Your task to perform on an android device: Go to Reddit.com Image 0: 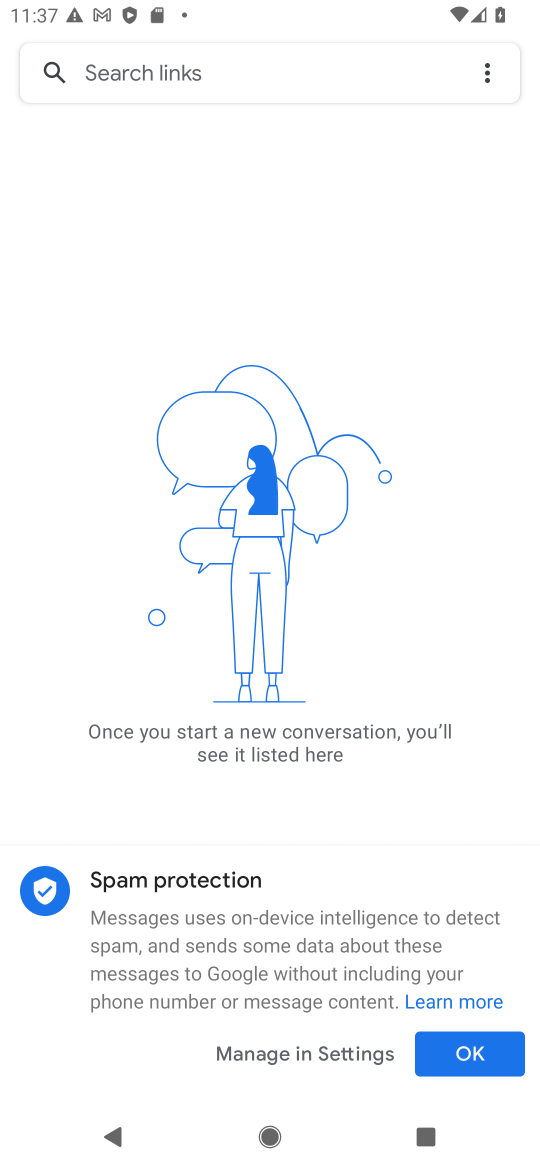
Step 0: press home button
Your task to perform on an android device: Go to Reddit.com Image 1: 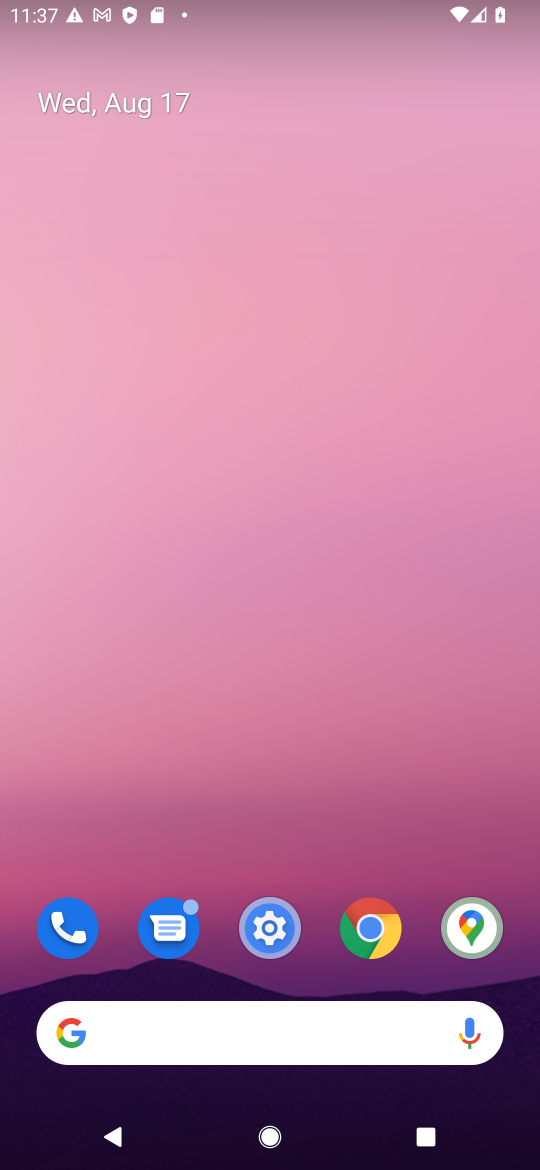
Step 1: click (340, 933)
Your task to perform on an android device: Go to Reddit.com Image 2: 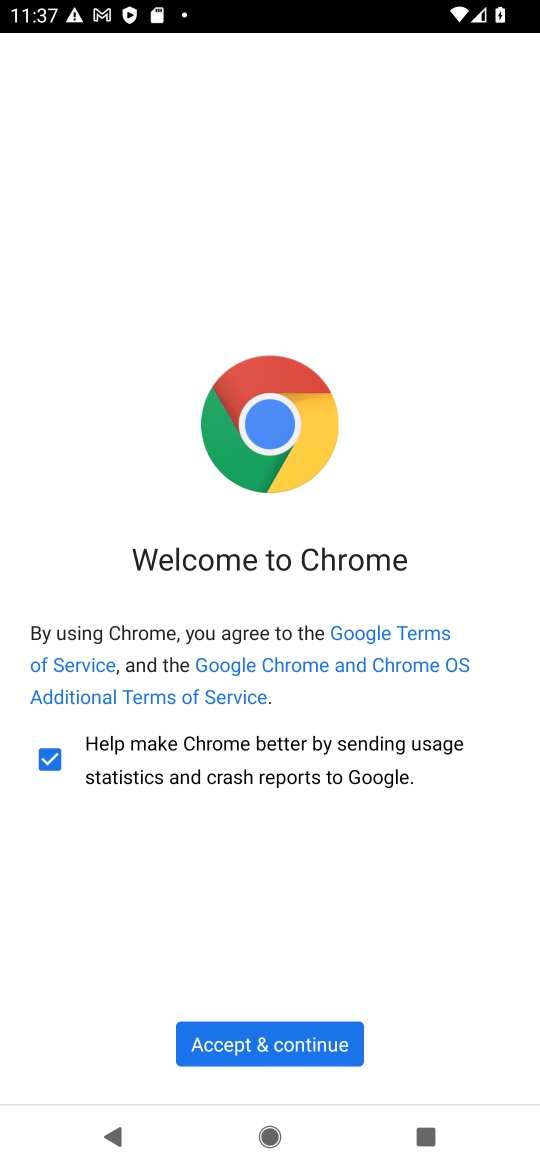
Step 2: click (249, 1035)
Your task to perform on an android device: Go to Reddit.com Image 3: 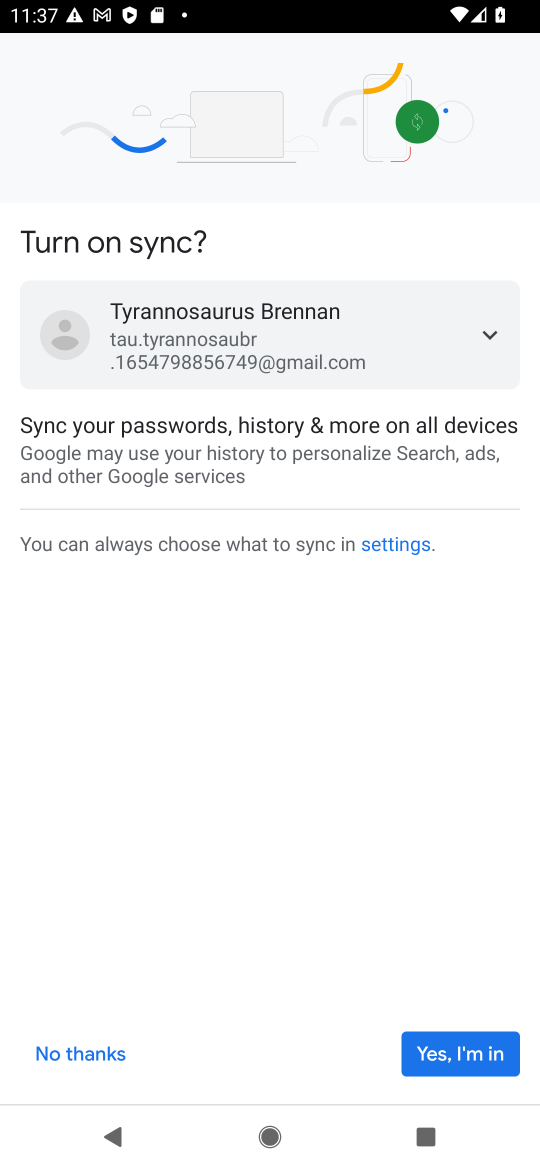
Step 3: click (467, 1047)
Your task to perform on an android device: Go to Reddit.com Image 4: 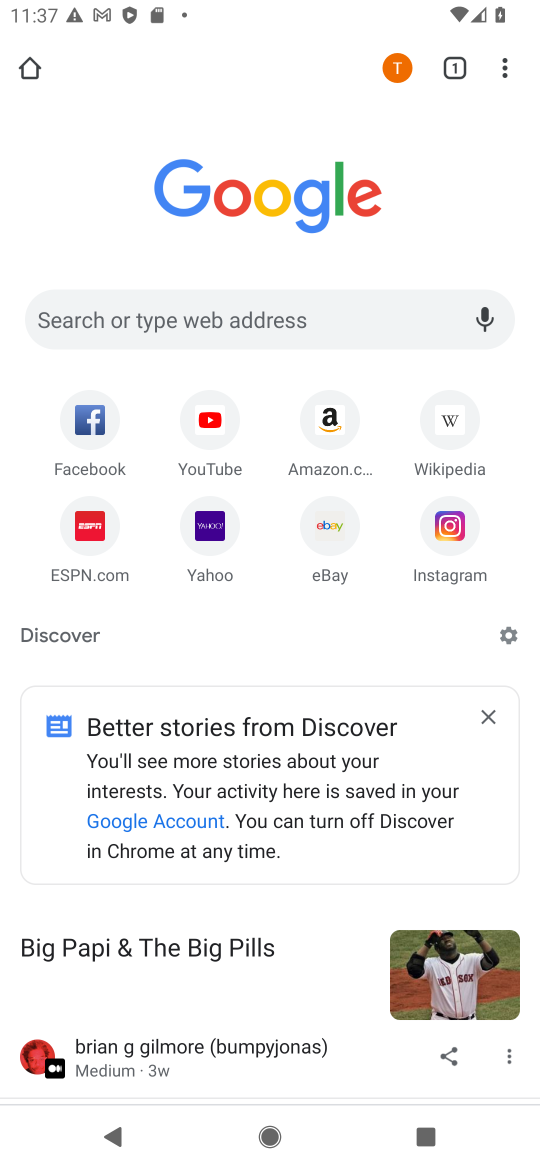
Step 4: click (176, 312)
Your task to perform on an android device: Go to Reddit.com Image 5: 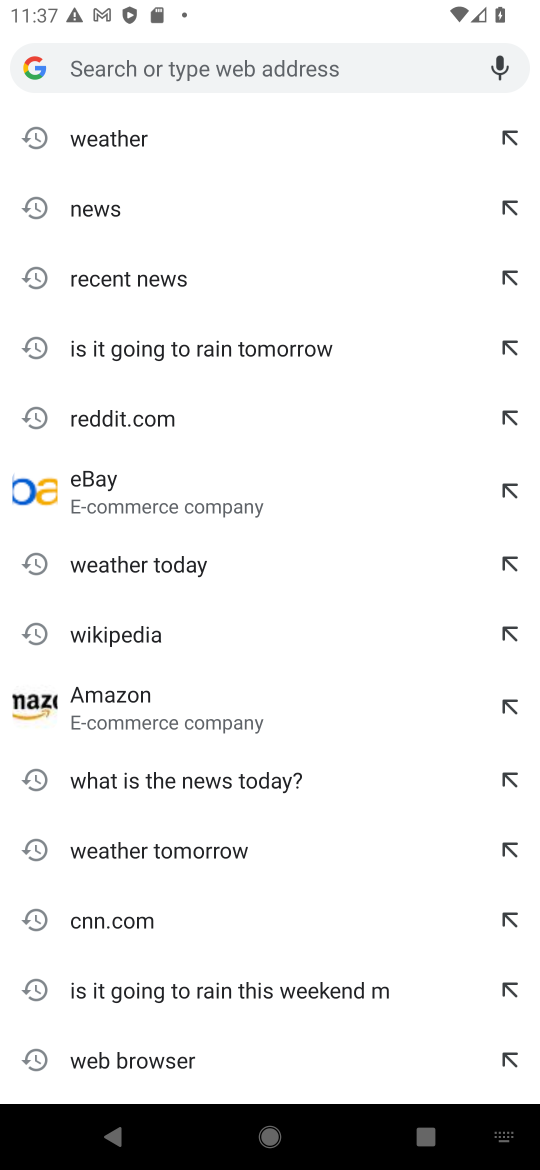
Step 5: type "Reddit.com"
Your task to perform on an android device: Go to Reddit.com Image 6: 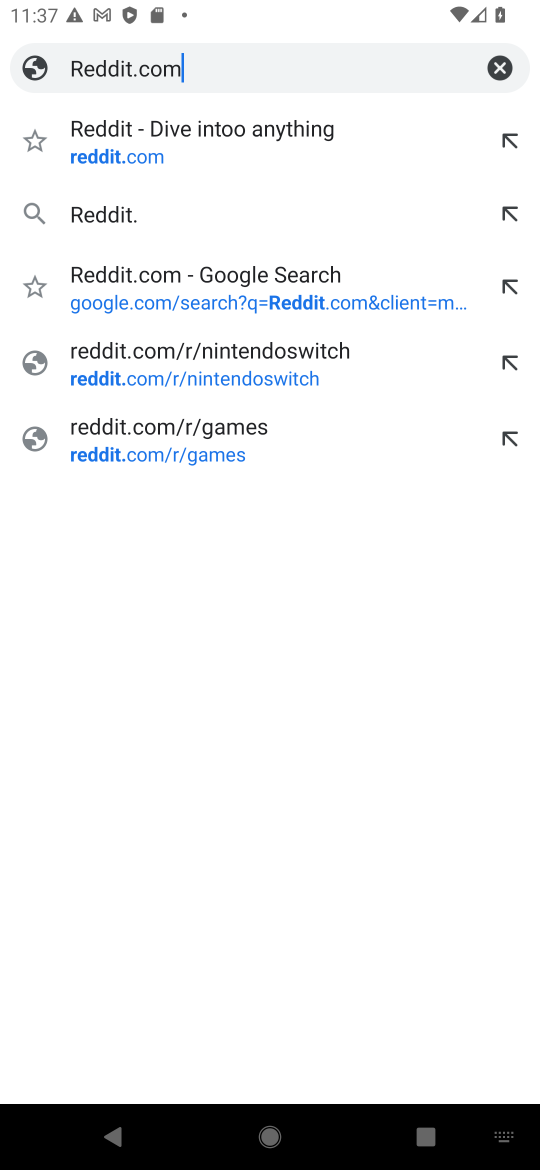
Step 6: type ""
Your task to perform on an android device: Go to Reddit.com Image 7: 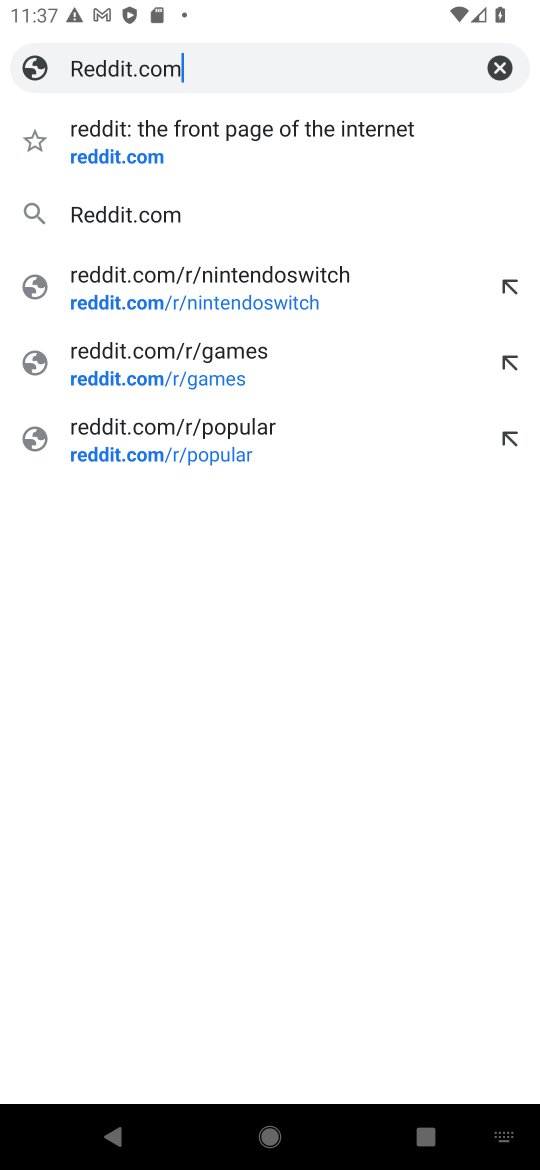
Step 7: click (221, 130)
Your task to perform on an android device: Go to Reddit.com Image 8: 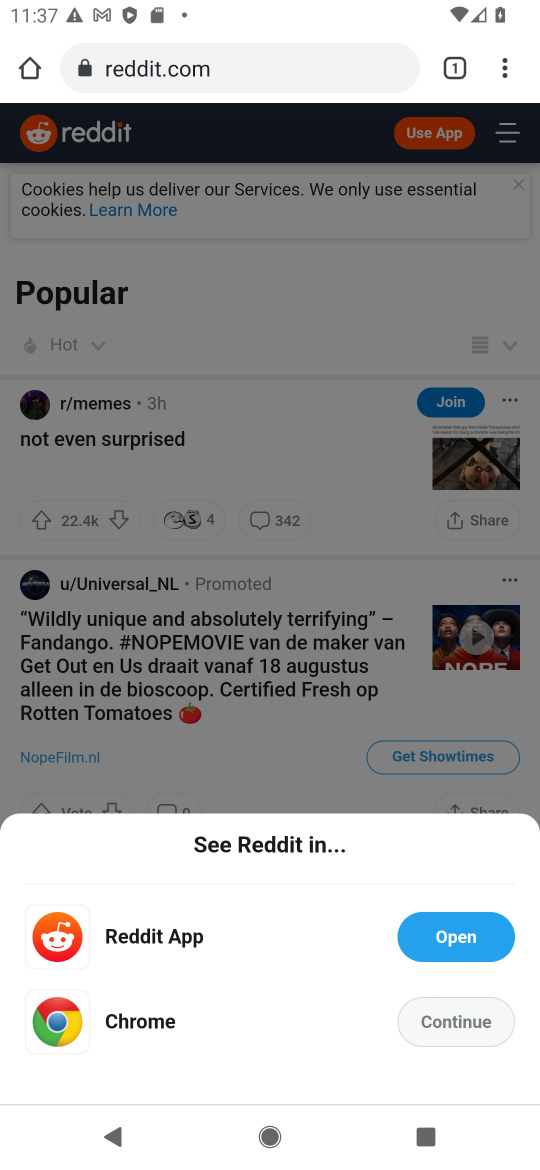
Step 8: task complete